Your task to perform on an android device: Open ESPN.com Image 0: 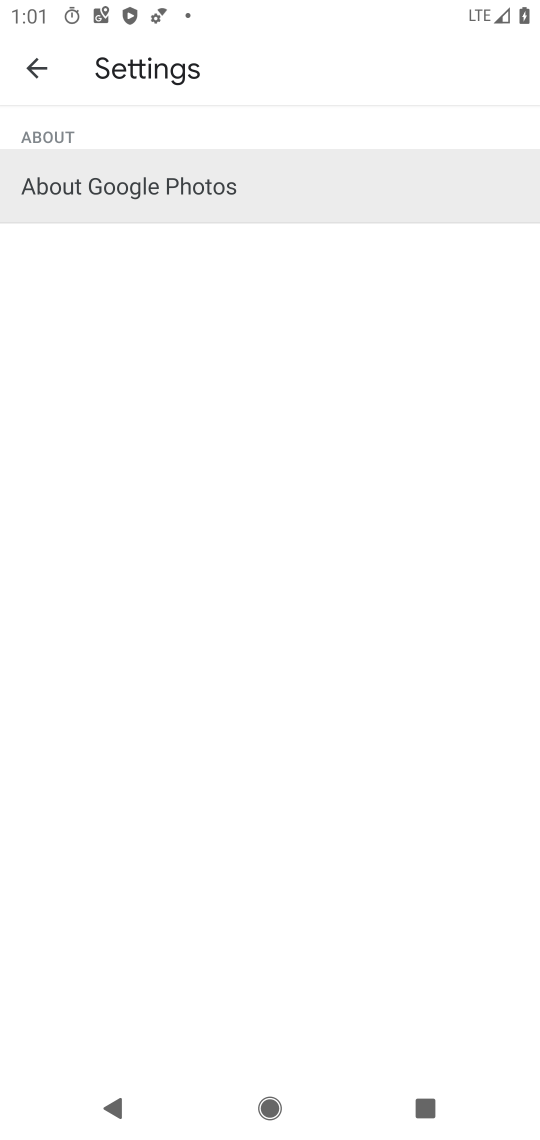
Step 0: press home button
Your task to perform on an android device: Open ESPN.com Image 1: 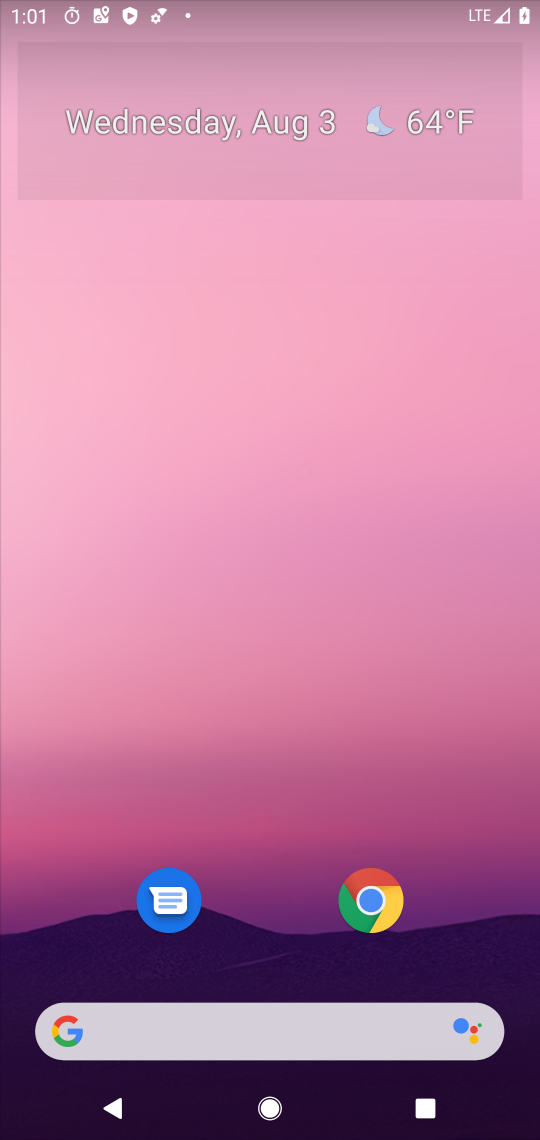
Step 1: drag from (443, 808) to (452, 31)
Your task to perform on an android device: Open ESPN.com Image 2: 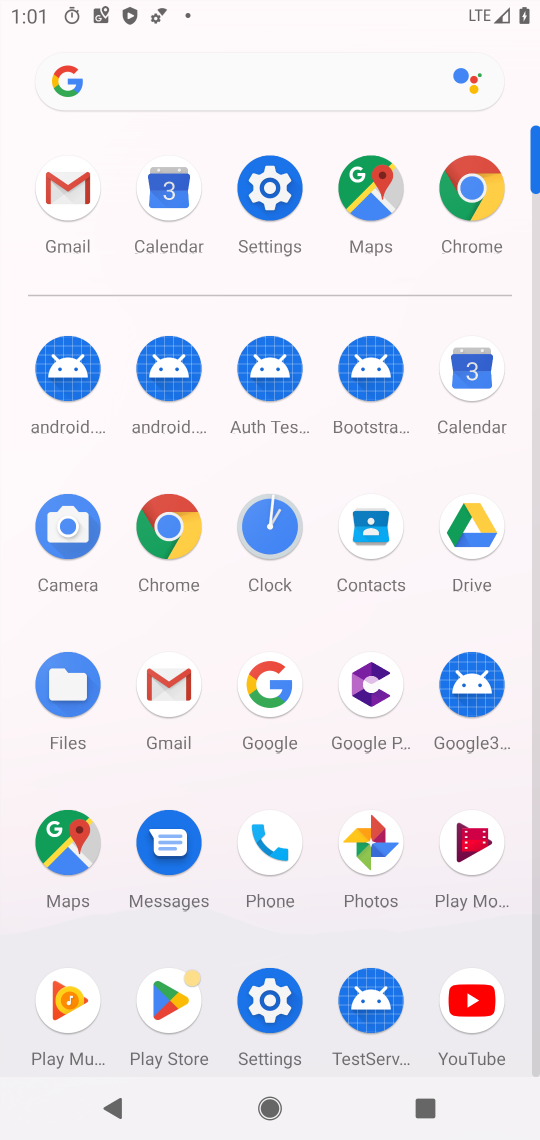
Step 2: click (476, 191)
Your task to perform on an android device: Open ESPN.com Image 3: 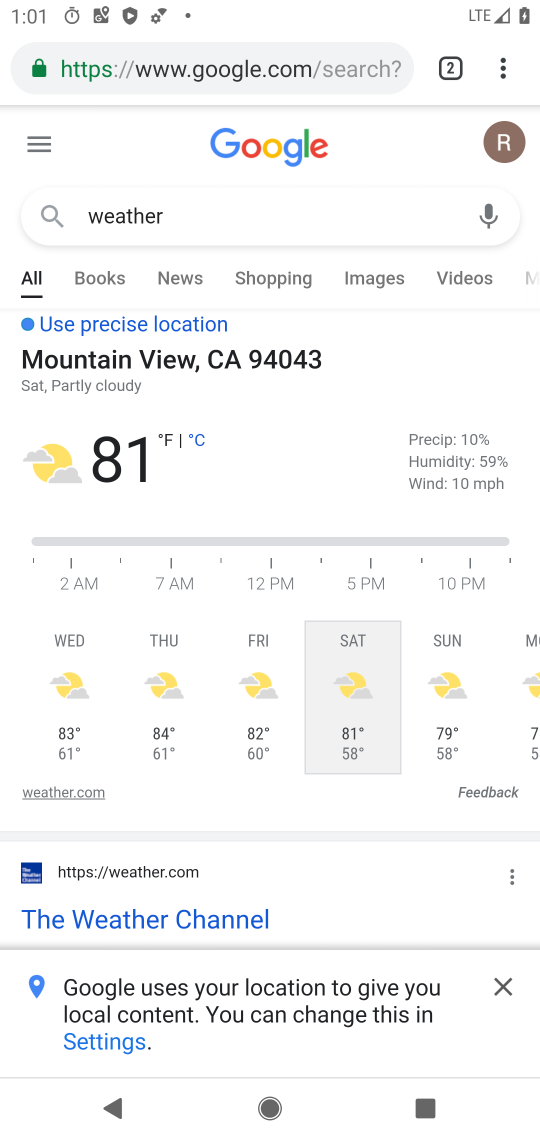
Step 3: click (330, 64)
Your task to perform on an android device: Open ESPN.com Image 4: 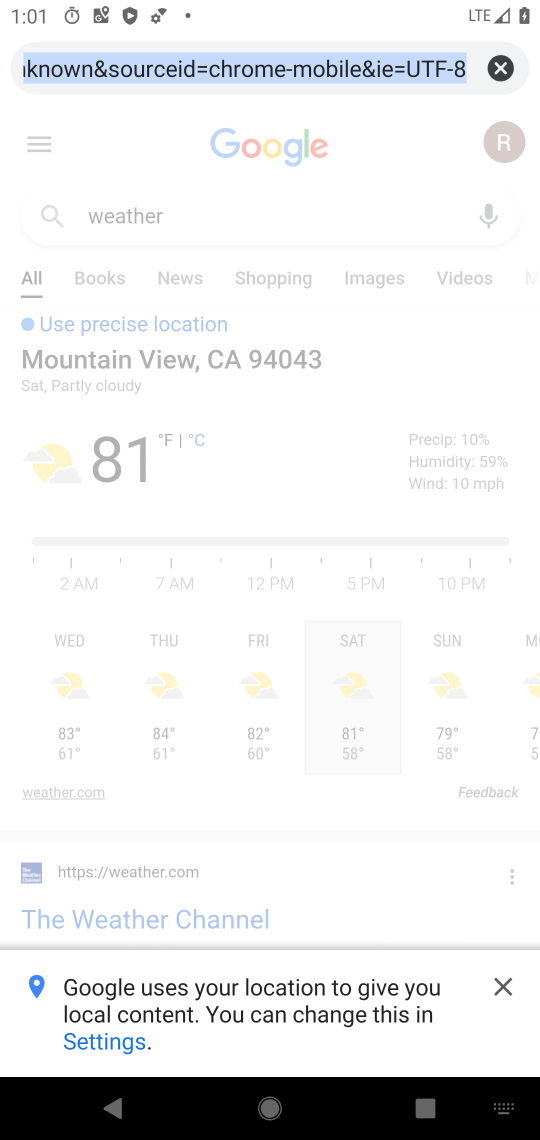
Step 4: type "ESPN.com"
Your task to perform on an android device: Open ESPN.com Image 5: 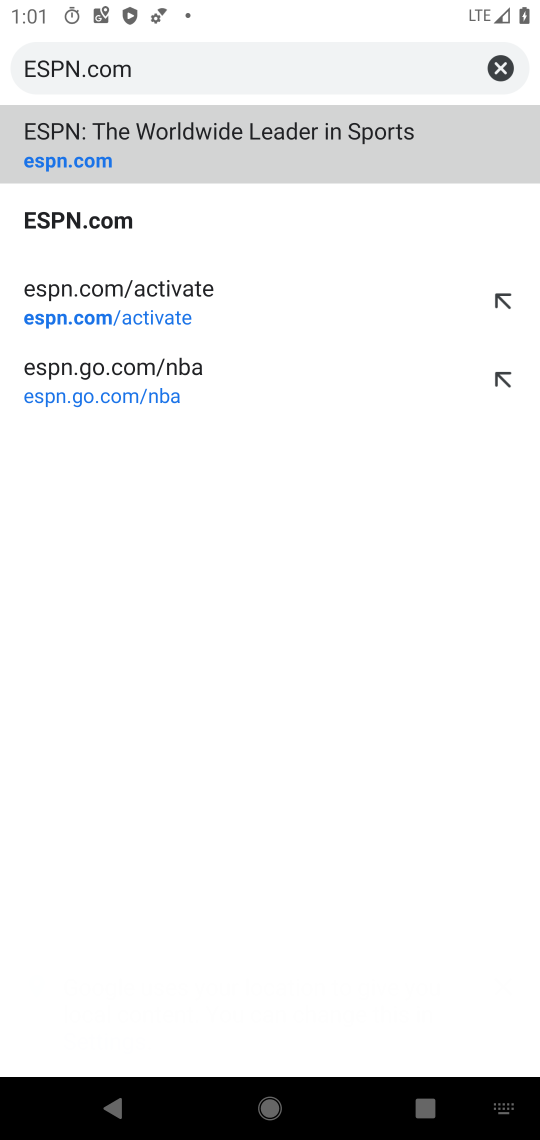
Step 5: click (106, 151)
Your task to perform on an android device: Open ESPN.com Image 6: 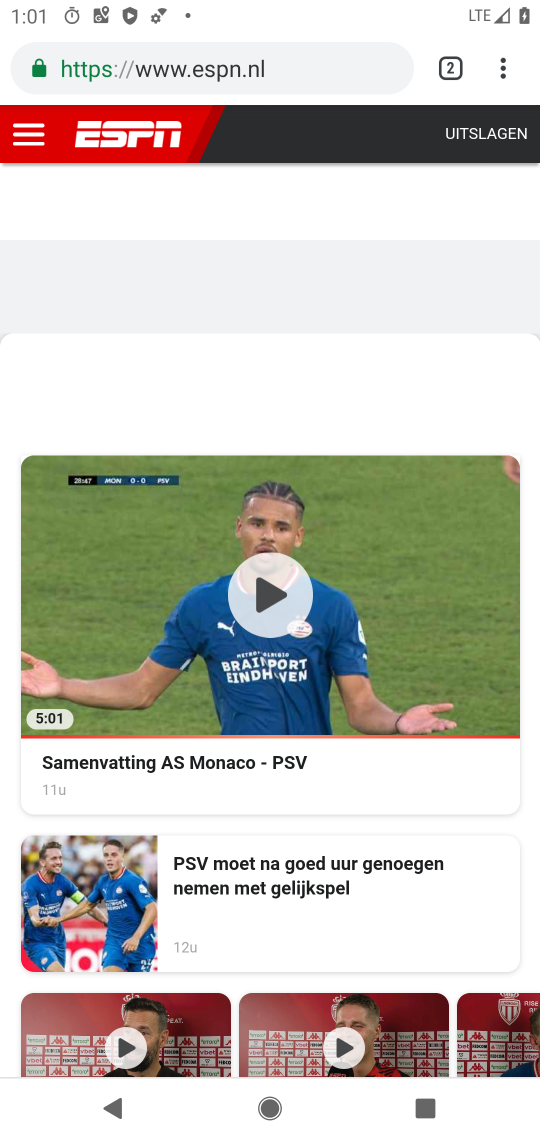
Step 6: task complete